Your task to perform on an android device: change alarm snooze length Image 0: 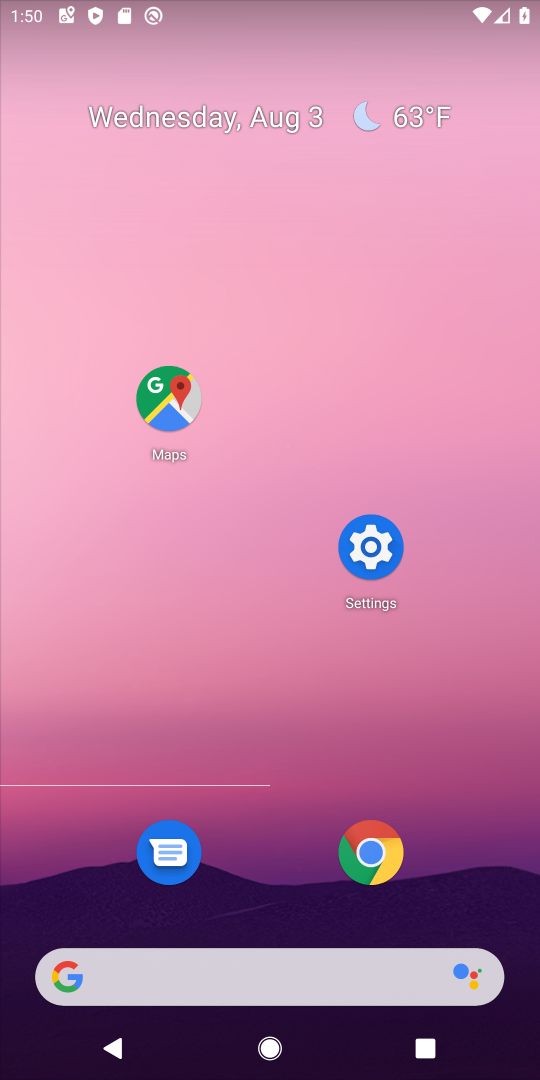
Step 0: drag from (251, 957) to (398, 202)
Your task to perform on an android device: change alarm snooze length Image 1: 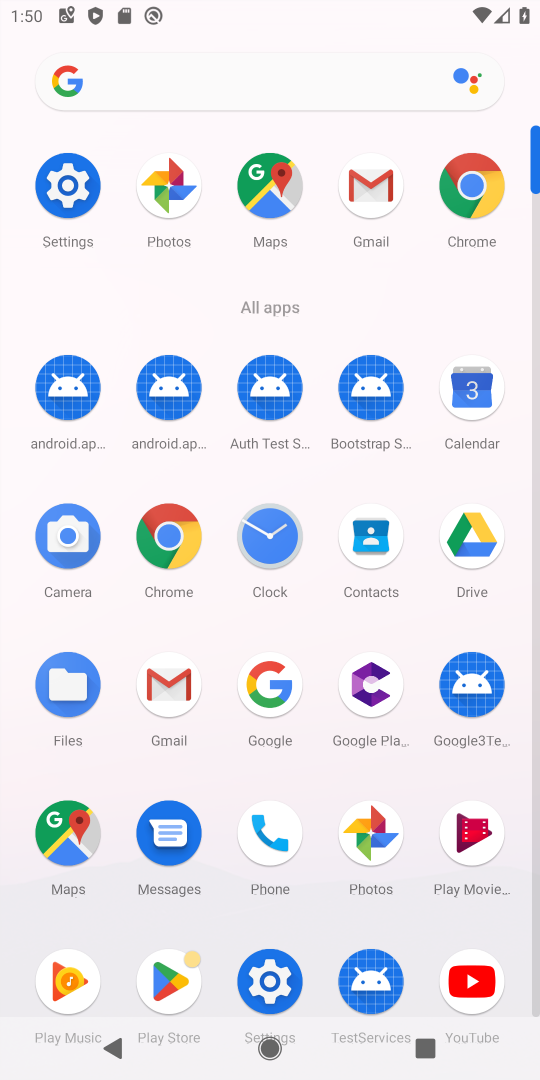
Step 1: click (262, 527)
Your task to perform on an android device: change alarm snooze length Image 2: 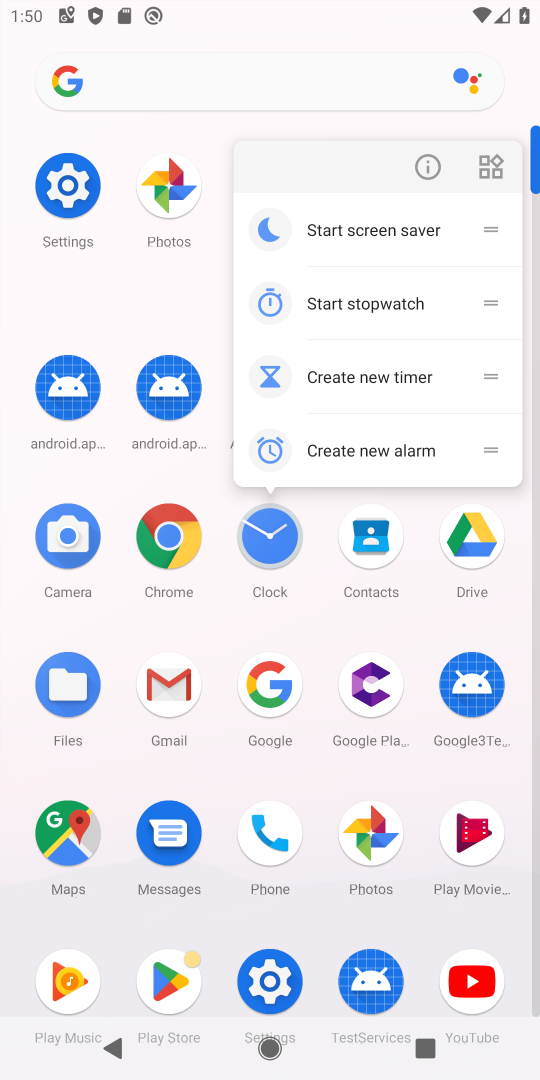
Step 2: click (274, 545)
Your task to perform on an android device: change alarm snooze length Image 3: 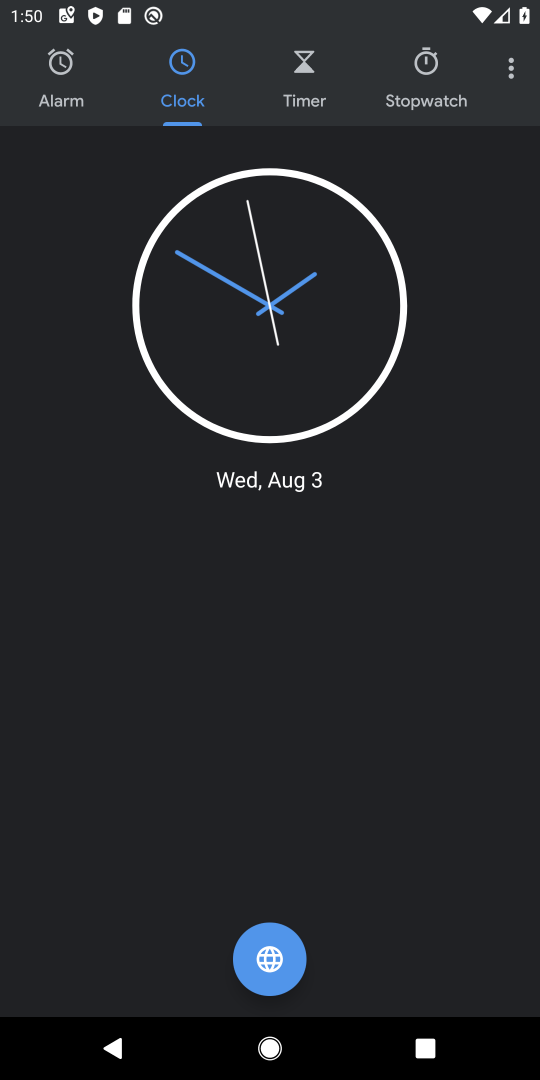
Step 3: click (502, 63)
Your task to perform on an android device: change alarm snooze length Image 4: 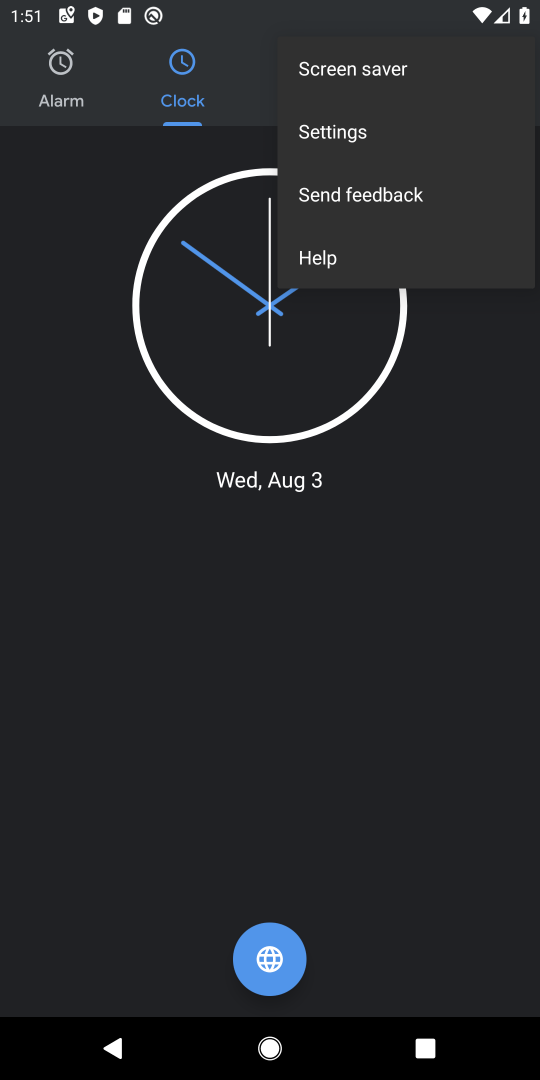
Step 4: click (351, 131)
Your task to perform on an android device: change alarm snooze length Image 5: 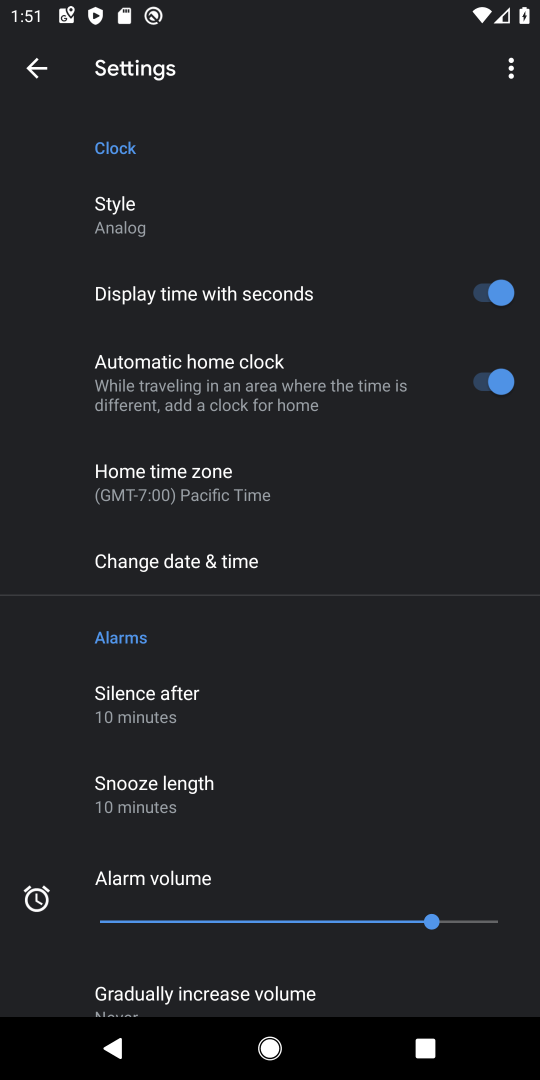
Step 5: drag from (333, 839) to (409, 196)
Your task to perform on an android device: change alarm snooze length Image 6: 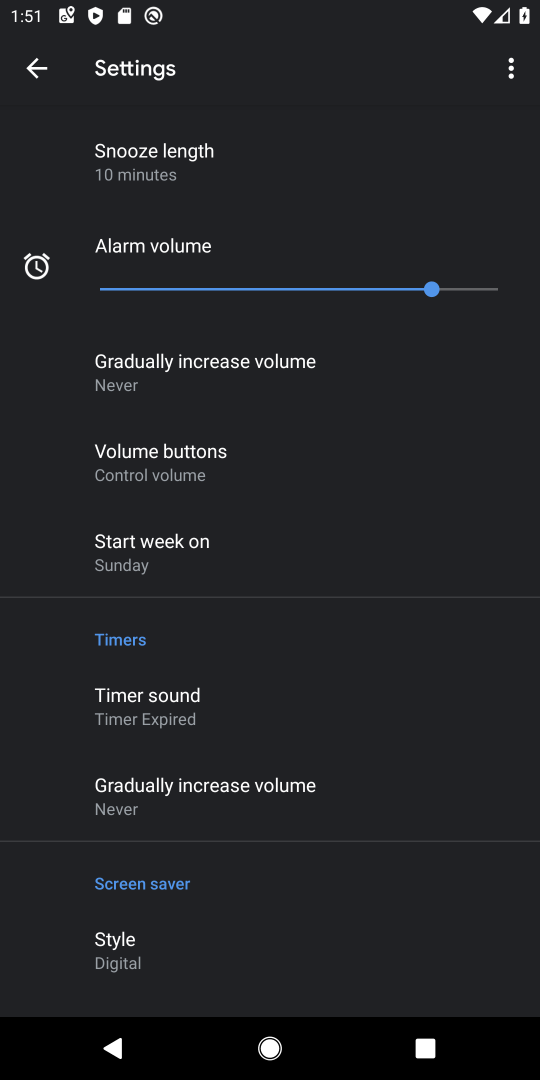
Step 6: drag from (300, 444) to (280, 898)
Your task to perform on an android device: change alarm snooze length Image 7: 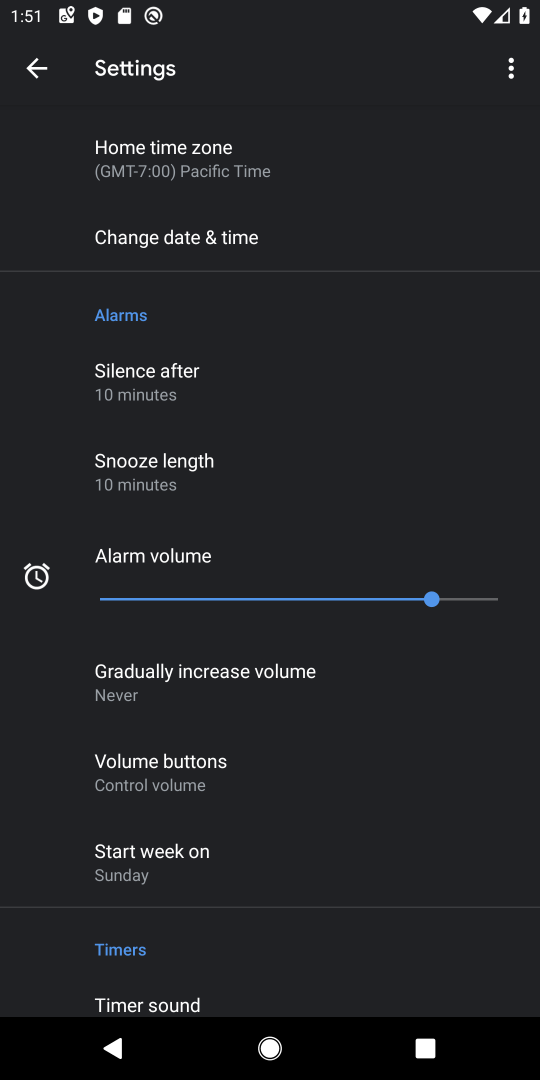
Step 7: click (162, 483)
Your task to perform on an android device: change alarm snooze length Image 8: 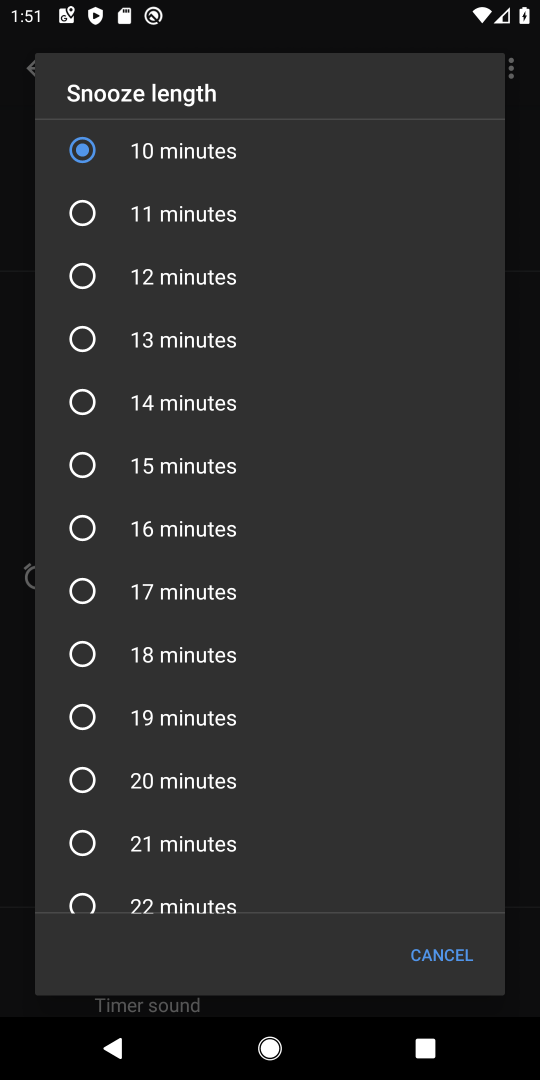
Step 8: click (82, 466)
Your task to perform on an android device: change alarm snooze length Image 9: 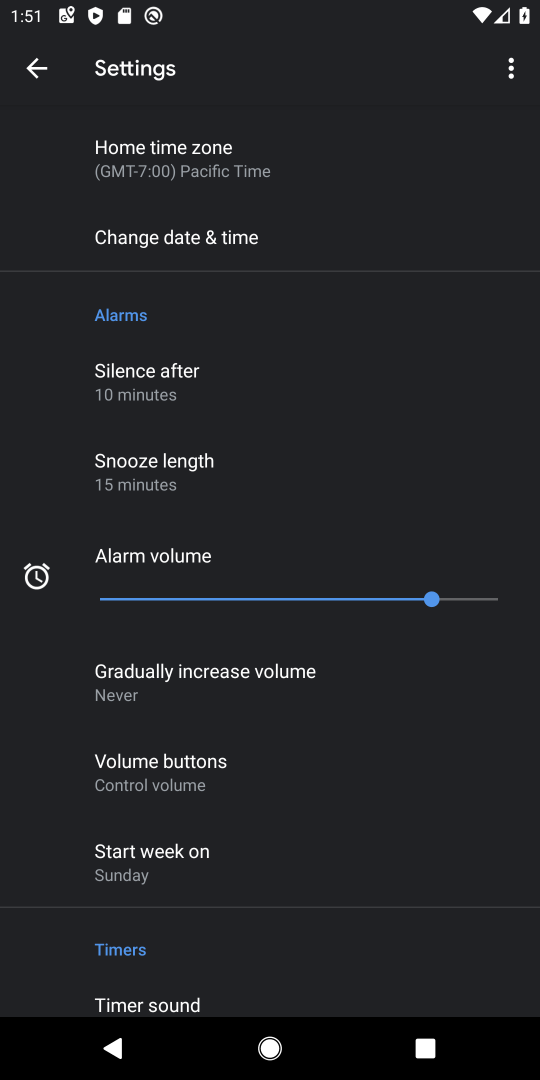
Step 9: task complete